Your task to perform on an android device: Go to Yahoo.com Image 0: 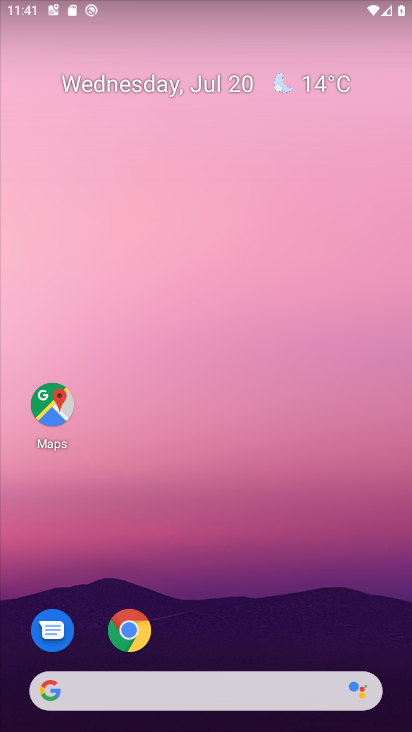
Step 0: click (123, 619)
Your task to perform on an android device: Go to Yahoo.com Image 1: 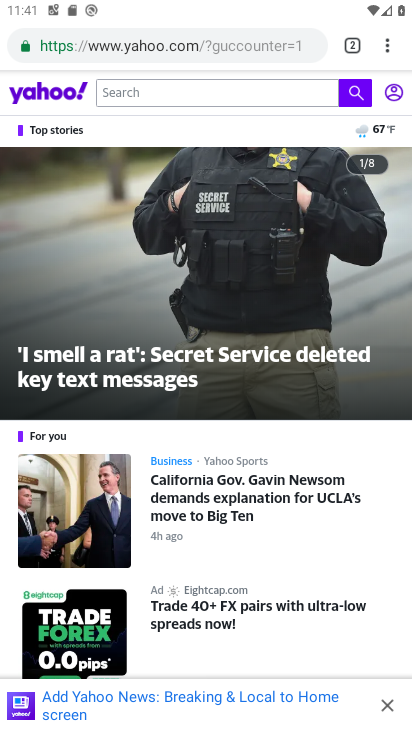
Step 1: task complete